Your task to perform on an android device: change timer sound Image 0: 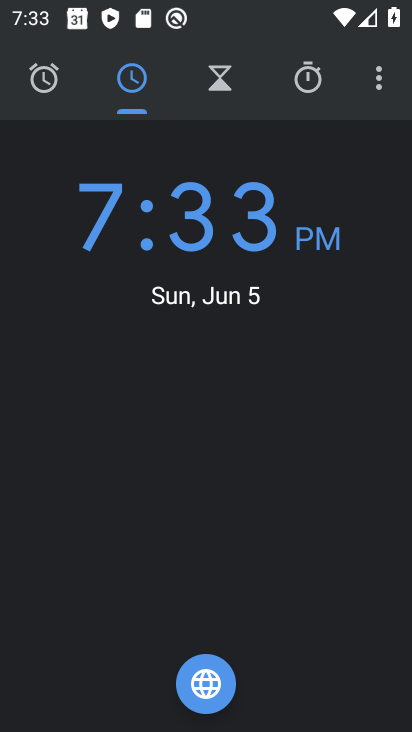
Step 0: press home button
Your task to perform on an android device: change timer sound Image 1: 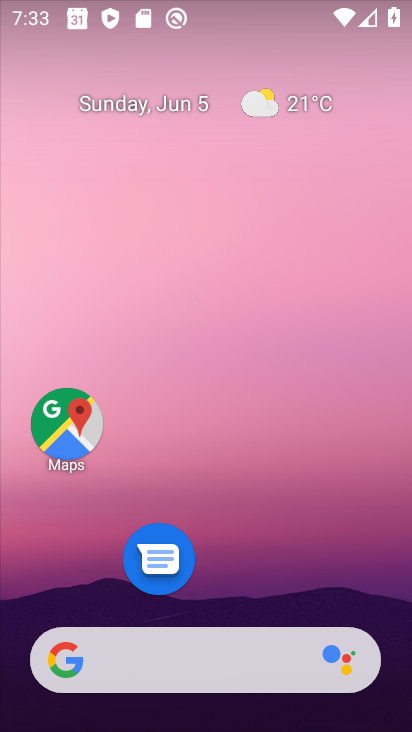
Step 1: drag from (196, 626) to (143, 22)
Your task to perform on an android device: change timer sound Image 2: 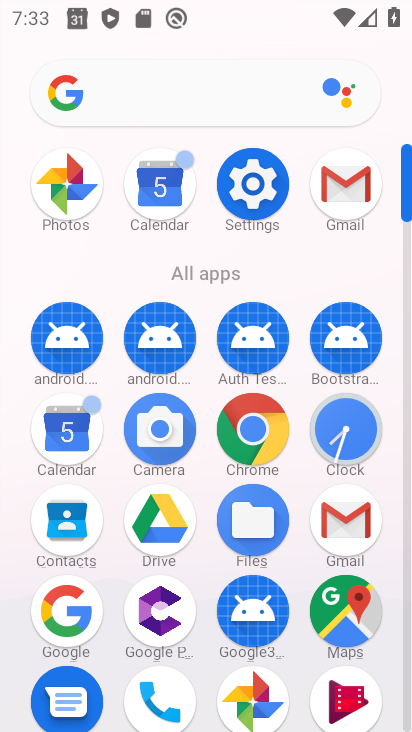
Step 2: click (347, 417)
Your task to perform on an android device: change timer sound Image 3: 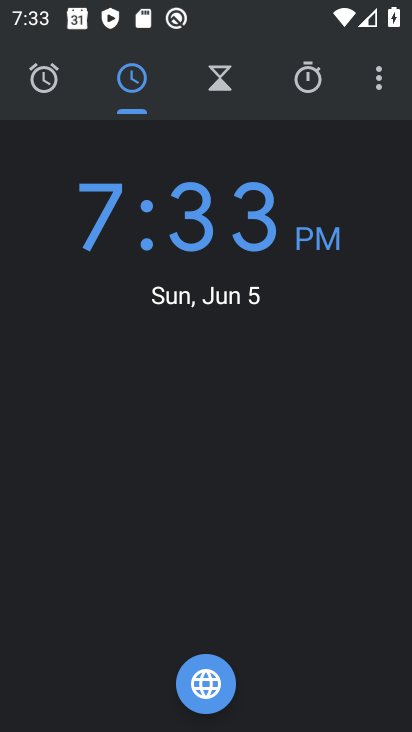
Step 3: click (377, 77)
Your task to perform on an android device: change timer sound Image 4: 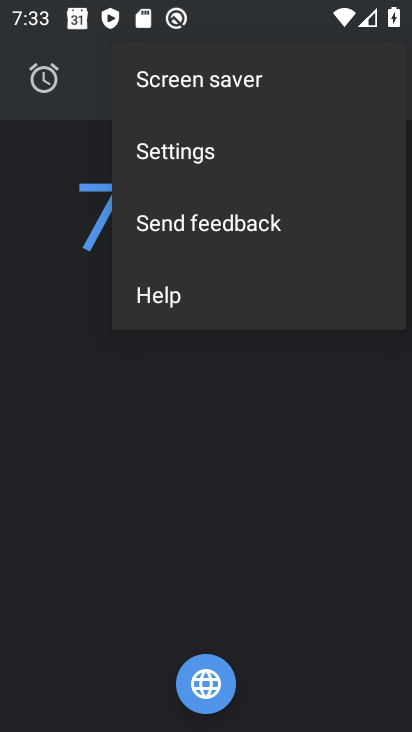
Step 4: click (167, 148)
Your task to perform on an android device: change timer sound Image 5: 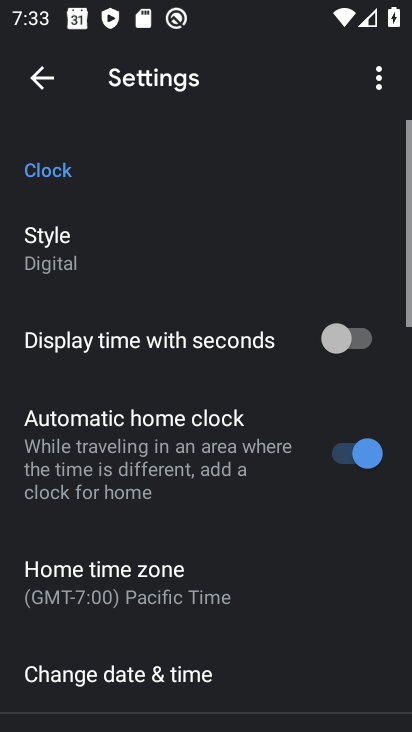
Step 5: drag from (173, 522) to (67, 38)
Your task to perform on an android device: change timer sound Image 6: 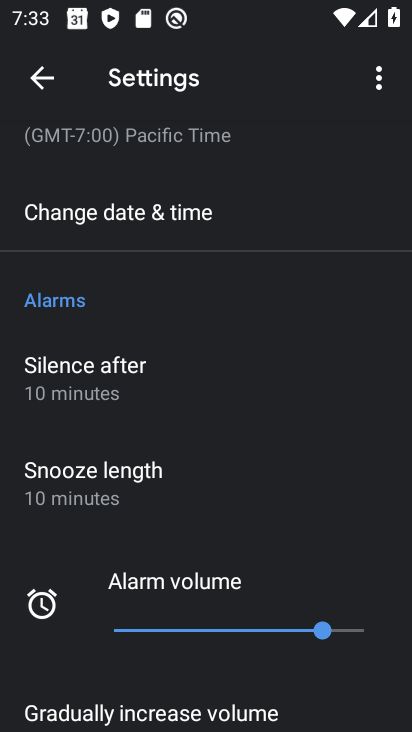
Step 6: drag from (165, 567) to (65, 39)
Your task to perform on an android device: change timer sound Image 7: 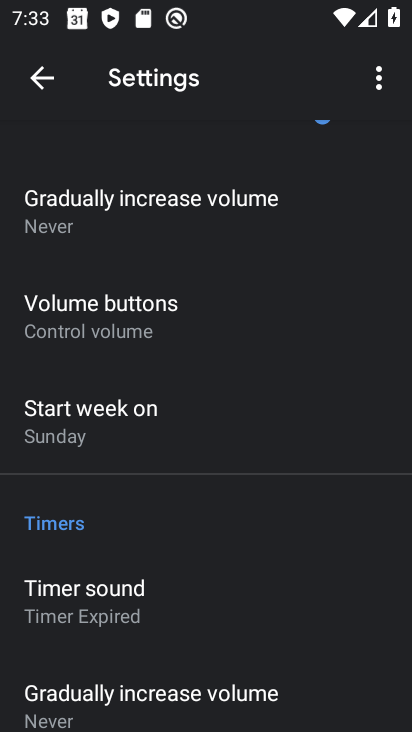
Step 7: click (86, 586)
Your task to perform on an android device: change timer sound Image 8: 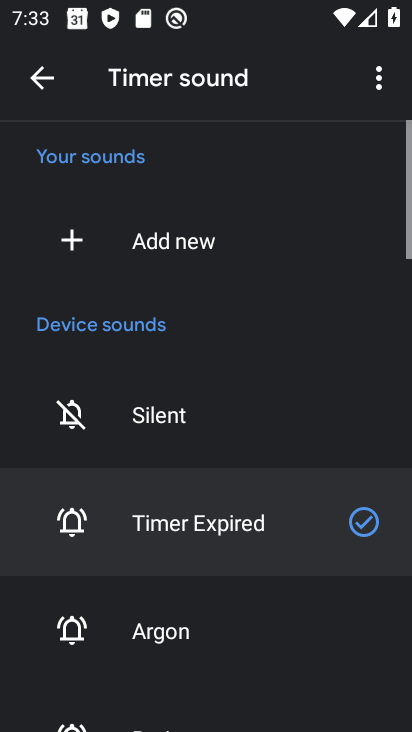
Step 8: click (169, 631)
Your task to perform on an android device: change timer sound Image 9: 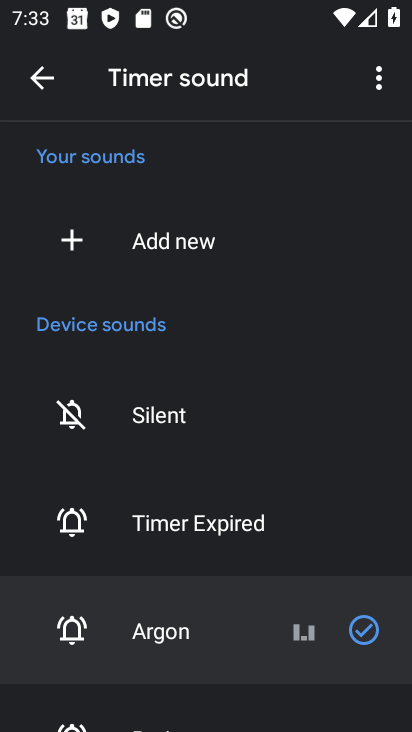
Step 9: task complete